Your task to perform on an android device: empty trash in the gmail app Image 0: 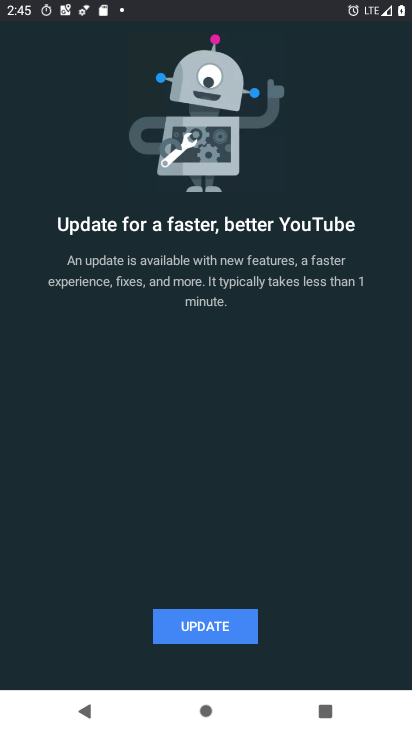
Step 0: press home button
Your task to perform on an android device: empty trash in the gmail app Image 1: 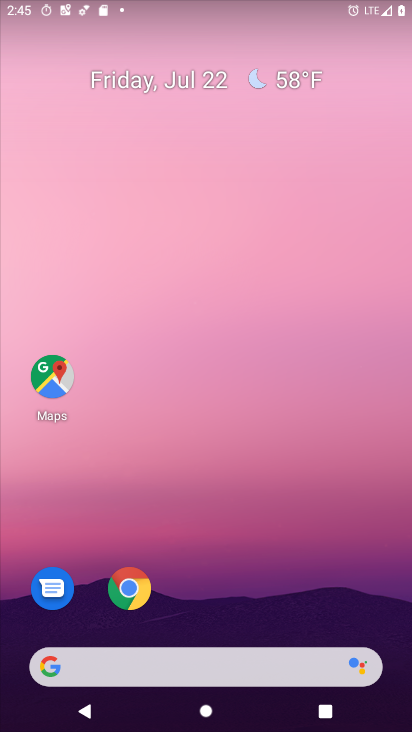
Step 1: drag from (278, 612) to (252, 59)
Your task to perform on an android device: empty trash in the gmail app Image 2: 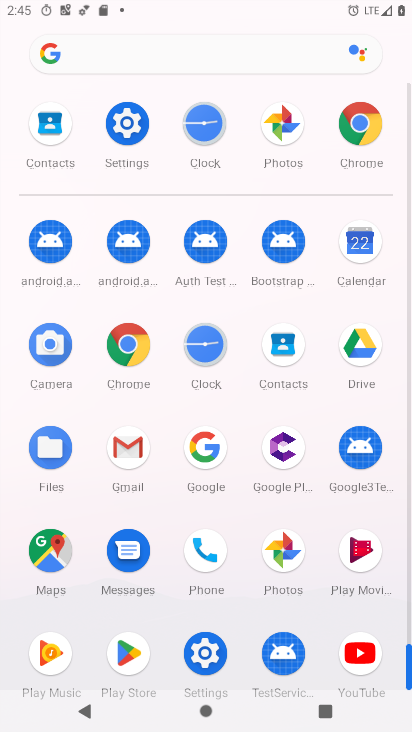
Step 2: click (283, 558)
Your task to perform on an android device: empty trash in the gmail app Image 3: 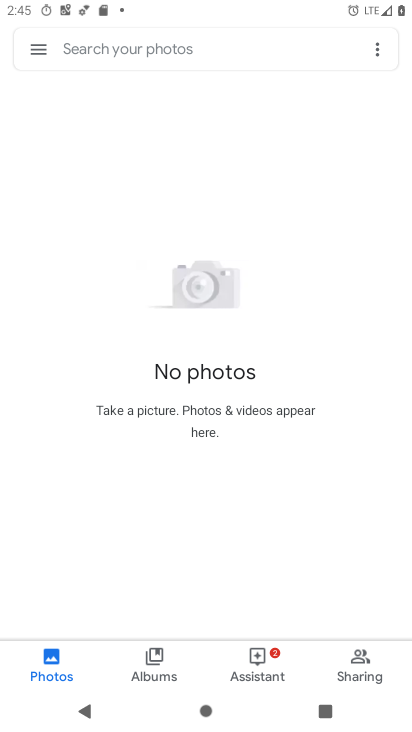
Step 3: click (47, 47)
Your task to perform on an android device: empty trash in the gmail app Image 4: 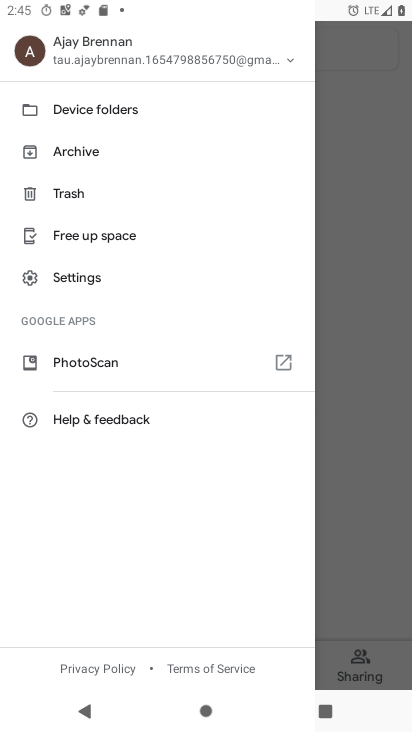
Step 4: click (47, 191)
Your task to perform on an android device: empty trash in the gmail app Image 5: 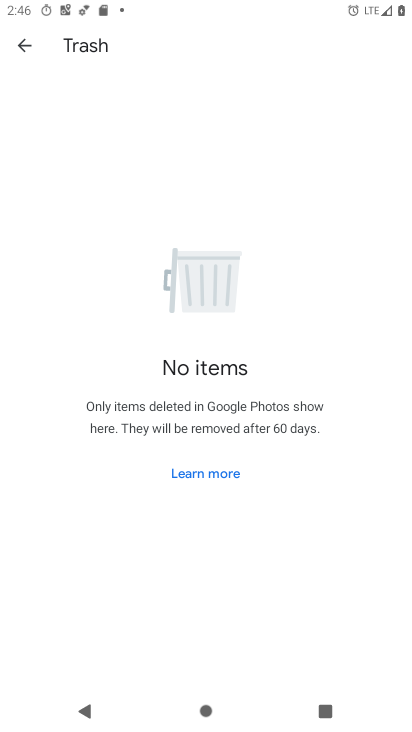
Step 5: task complete